Your task to perform on an android device: Go to calendar. Show me events next week Image 0: 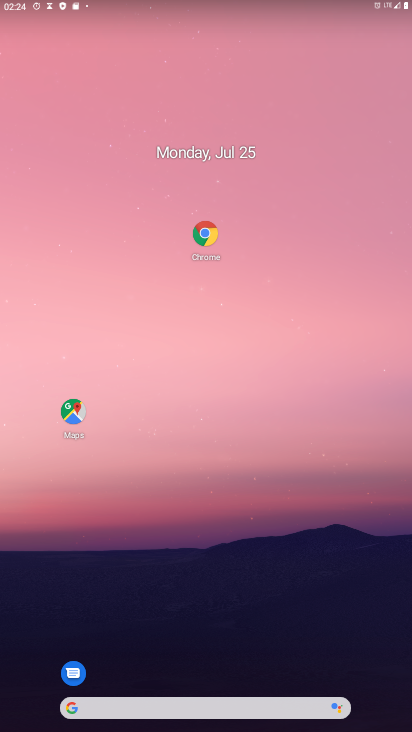
Step 0: drag from (184, 637) to (310, 3)
Your task to perform on an android device: Go to calendar. Show me events next week Image 1: 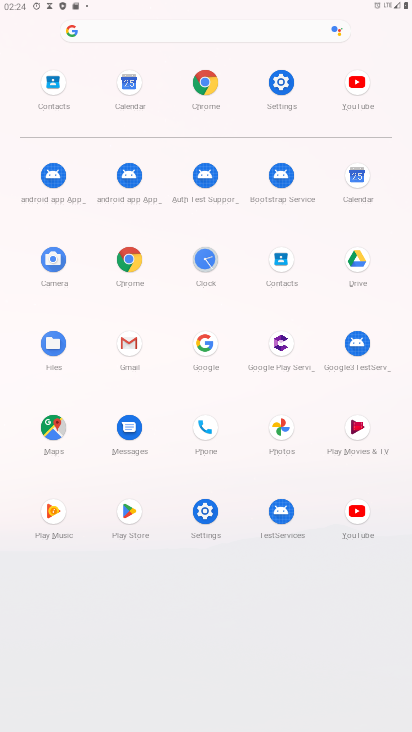
Step 1: click (346, 173)
Your task to perform on an android device: Go to calendar. Show me events next week Image 2: 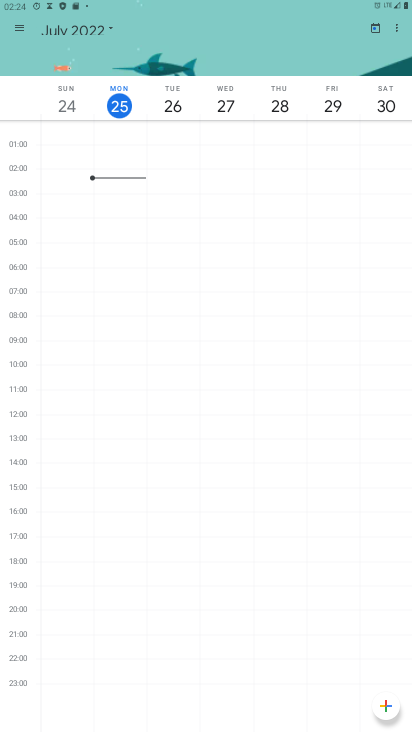
Step 2: click (108, 26)
Your task to perform on an android device: Go to calendar. Show me events next week Image 3: 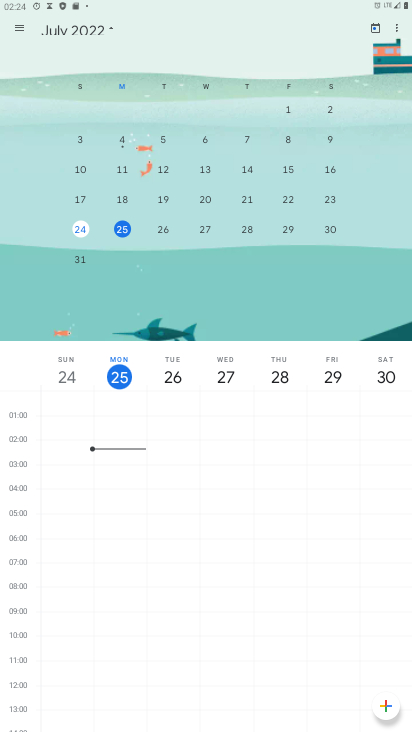
Step 3: drag from (298, 190) to (7, 192)
Your task to perform on an android device: Go to calendar. Show me events next week Image 4: 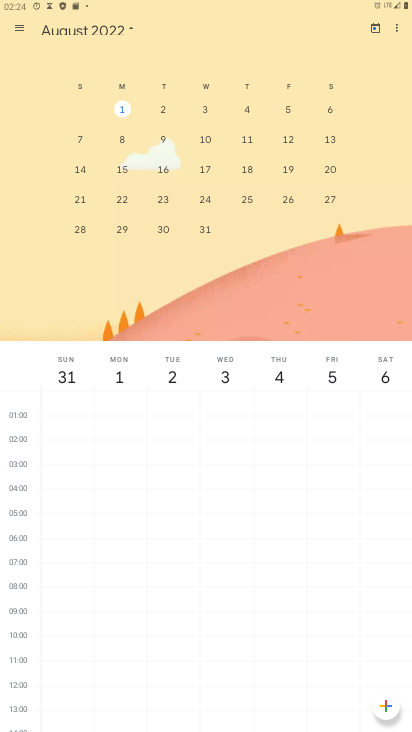
Step 4: click (210, 108)
Your task to perform on an android device: Go to calendar. Show me events next week Image 5: 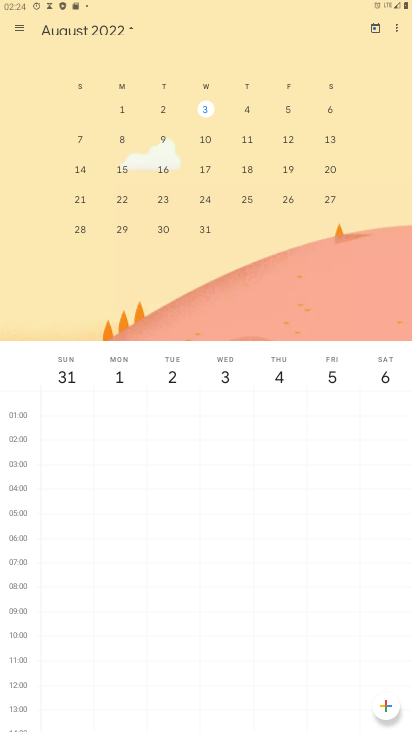
Step 5: task complete